Your task to perform on an android device: Open Chrome and go to settings Image 0: 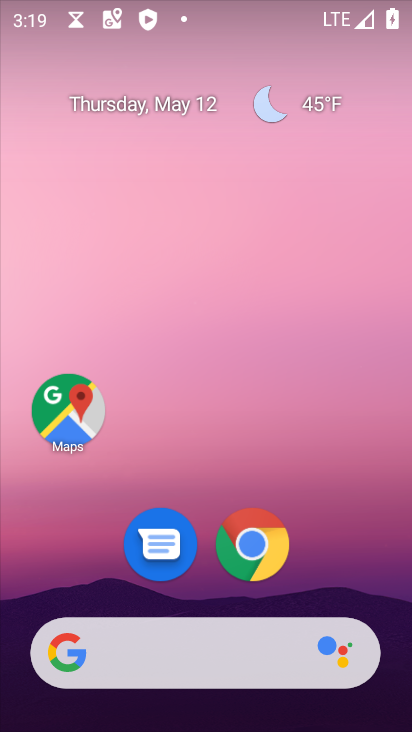
Step 0: click (242, 554)
Your task to perform on an android device: Open Chrome and go to settings Image 1: 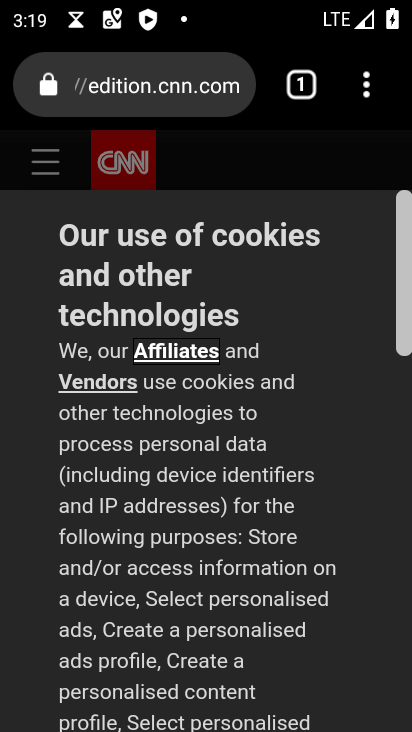
Step 1: click (359, 97)
Your task to perform on an android device: Open Chrome and go to settings Image 2: 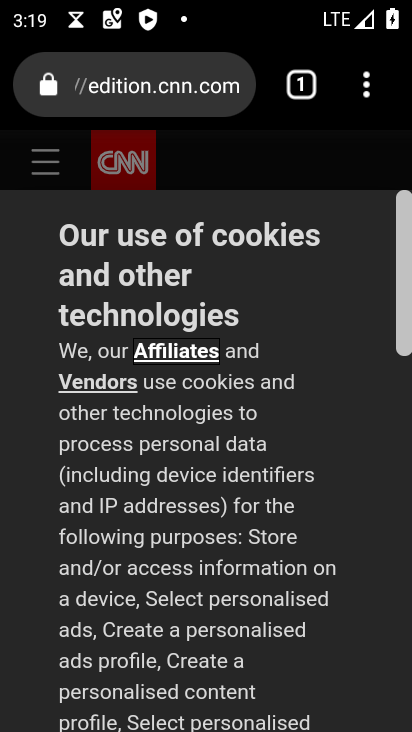
Step 2: click (358, 95)
Your task to perform on an android device: Open Chrome and go to settings Image 3: 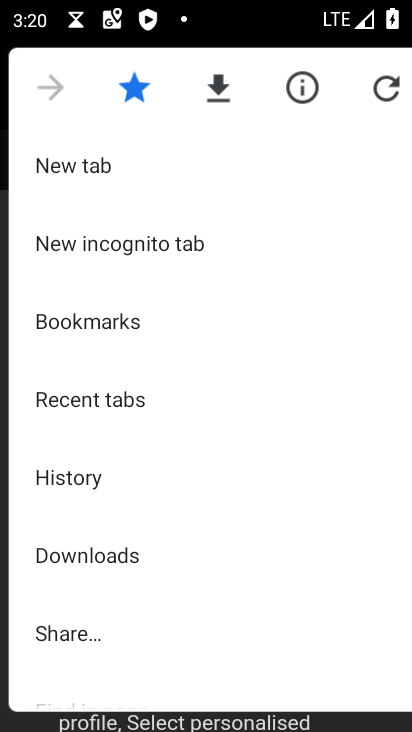
Step 3: drag from (187, 651) to (199, 377)
Your task to perform on an android device: Open Chrome and go to settings Image 4: 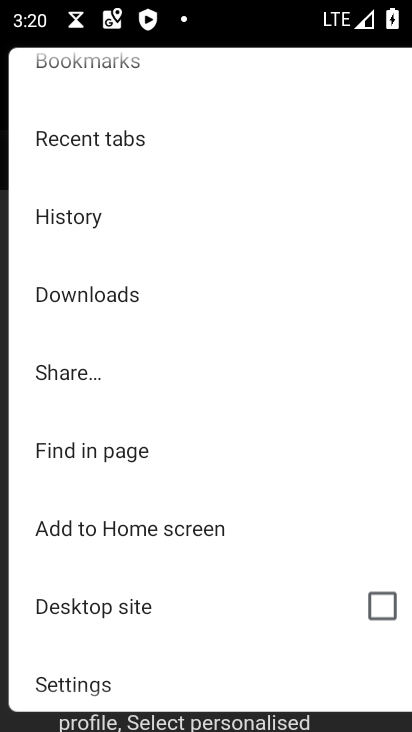
Step 4: click (90, 684)
Your task to perform on an android device: Open Chrome and go to settings Image 5: 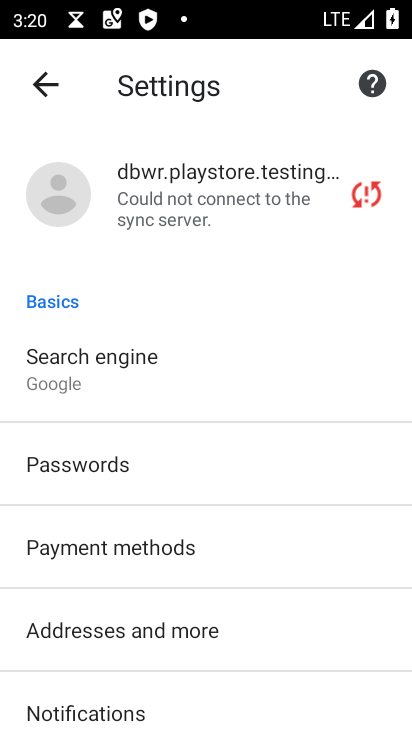
Step 5: task complete